Your task to perform on an android device: Open calendar and show me the third week of next month Image 0: 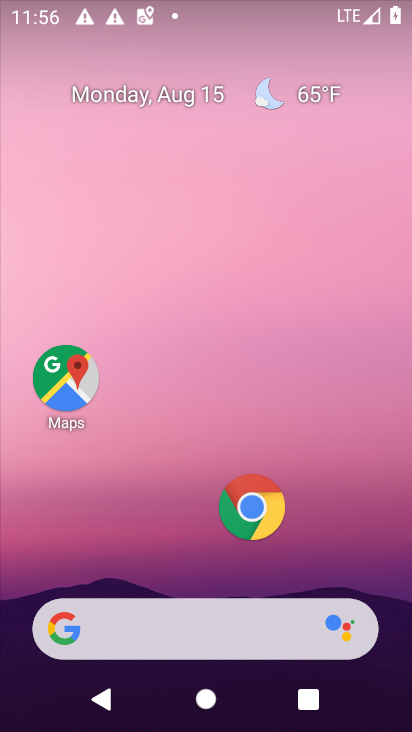
Step 0: drag from (191, 567) to (225, 94)
Your task to perform on an android device: Open calendar and show me the third week of next month Image 1: 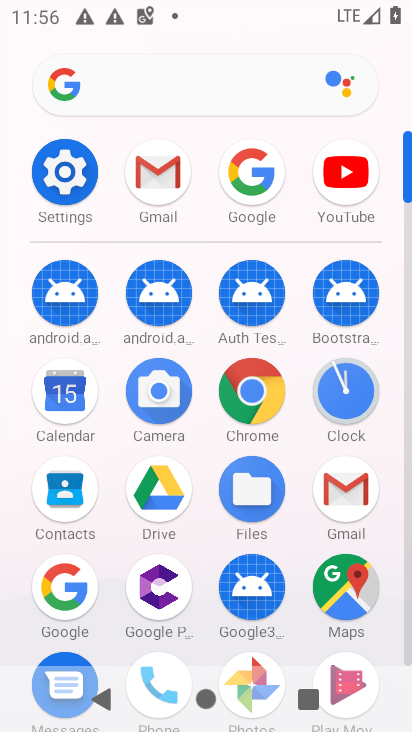
Step 1: click (60, 392)
Your task to perform on an android device: Open calendar and show me the third week of next month Image 2: 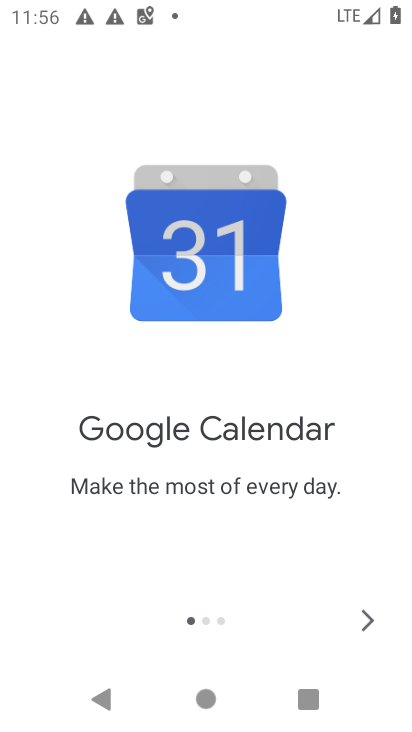
Step 2: click (366, 621)
Your task to perform on an android device: Open calendar and show me the third week of next month Image 3: 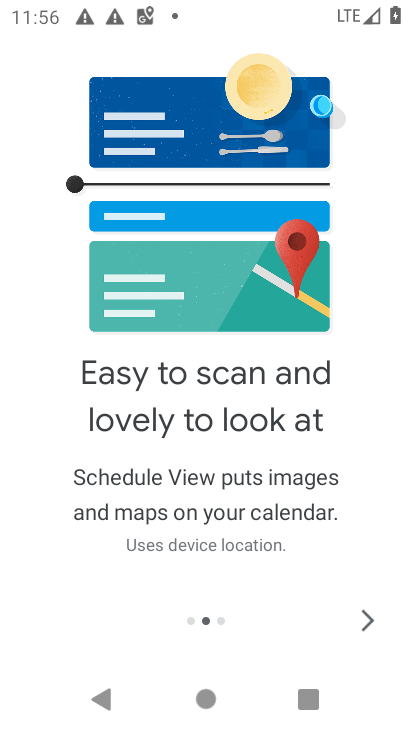
Step 3: click (366, 621)
Your task to perform on an android device: Open calendar and show me the third week of next month Image 4: 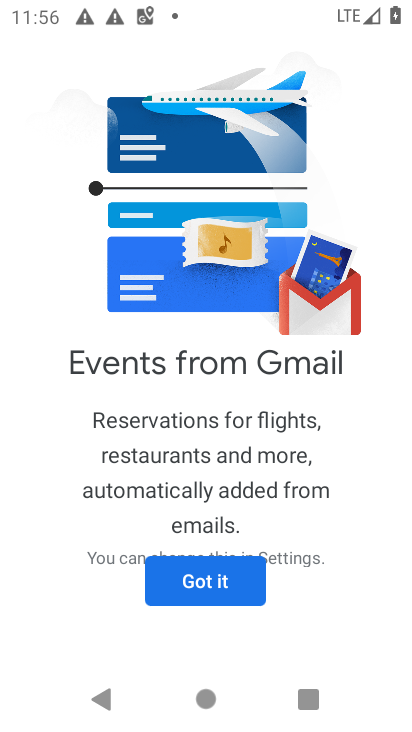
Step 4: click (212, 587)
Your task to perform on an android device: Open calendar and show me the third week of next month Image 5: 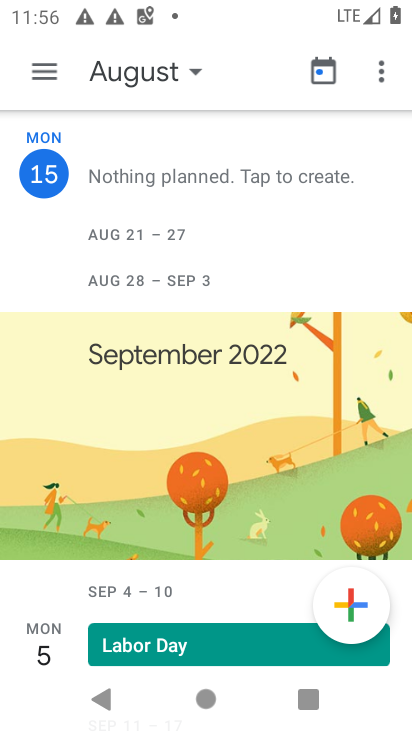
Step 5: click (49, 75)
Your task to perform on an android device: Open calendar and show me the third week of next month Image 6: 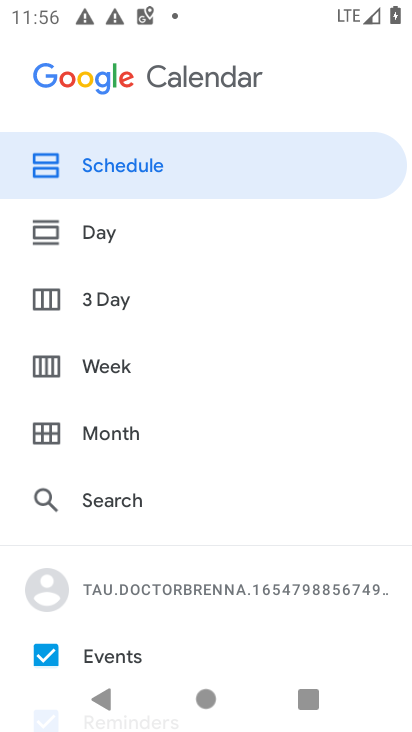
Step 6: click (104, 365)
Your task to perform on an android device: Open calendar and show me the third week of next month Image 7: 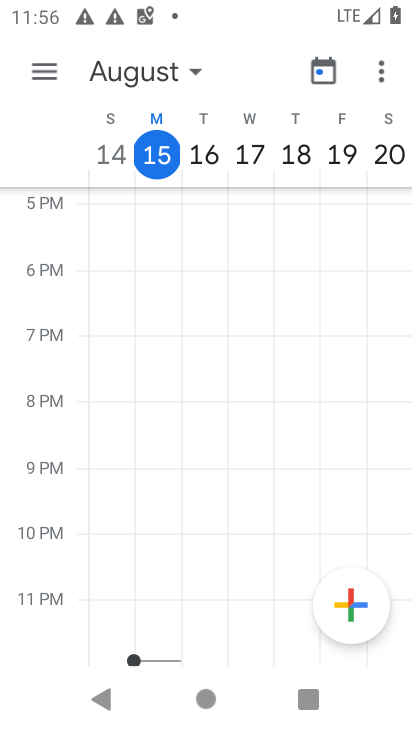
Step 7: click (197, 69)
Your task to perform on an android device: Open calendar and show me the third week of next month Image 8: 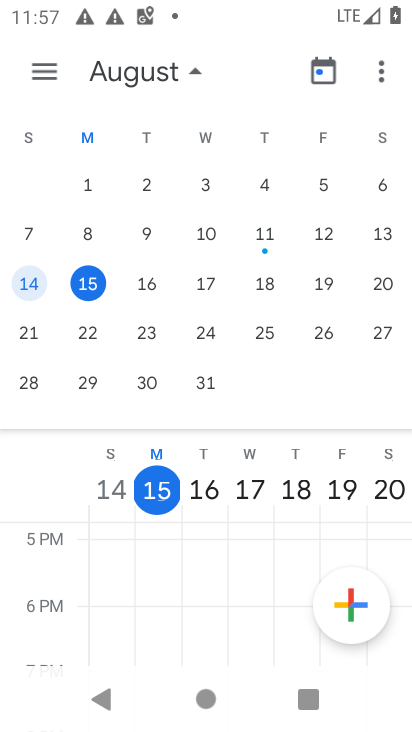
Step 8: drag from (374, 224) to (85, 212)
Your task to perform on an android device: Open calendar and show me the third week of next month Image 9: 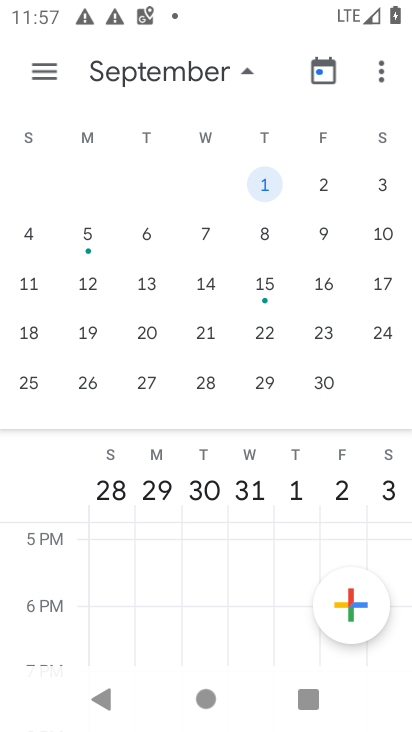
Step 9: click (140, 282)
Your task to perform on an android device: Open calendar and show me the third week of next month Image 10: 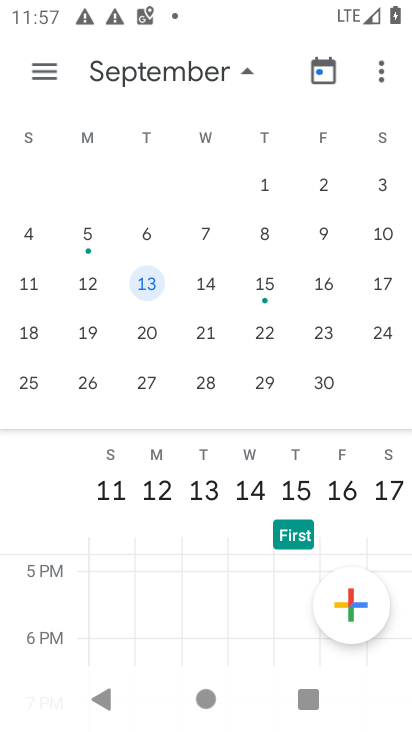
Step 10: task complete